Your task to perform on an android device: Go to notification settings Image 0: 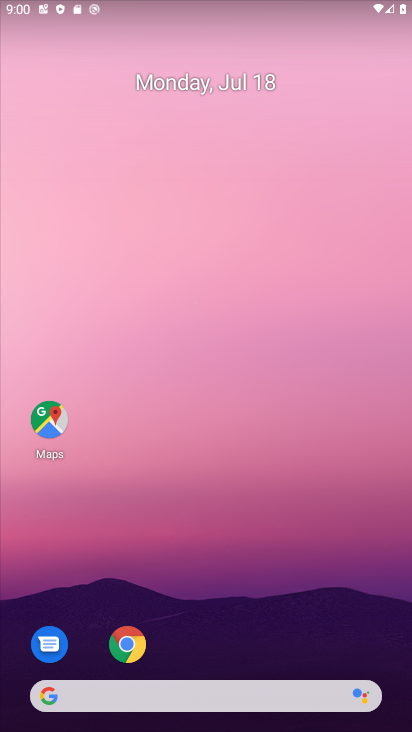
Step 0: drag from (223, 644) to (246, 9)
Your task to perform on an android device: Go to notification settings Image 1: 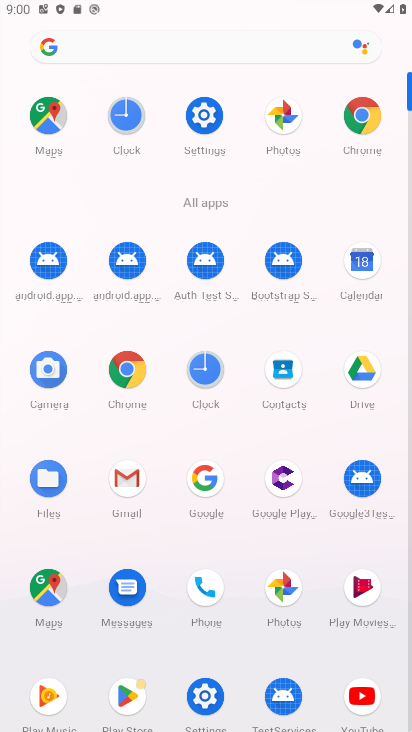
Step 1: click (182, 99)
Your task to perform on an android device: Go to notification settings Image 2: 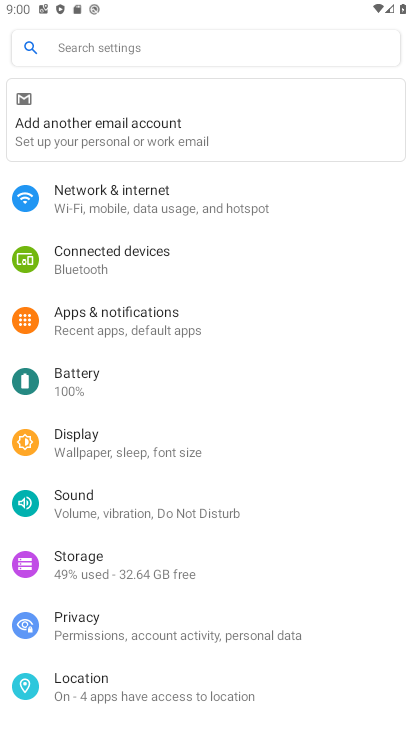
Step 2: click (167, 319)
Your task to perform on an android device: Go to notification settings Image 3: 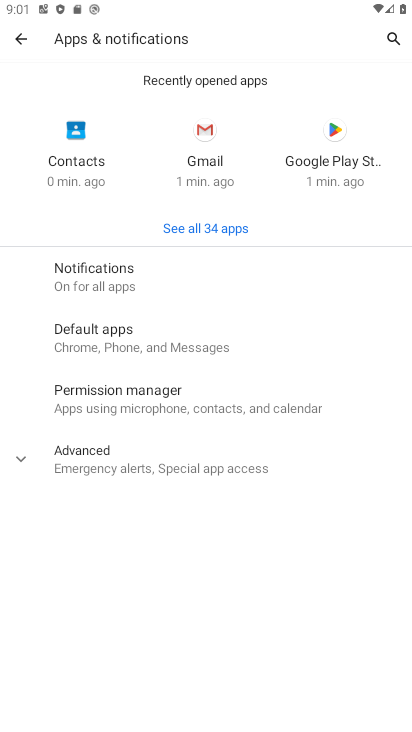
Step 3: task complete